Your task to perform on an android device: Open calendar and show me the fourth week of next month Image 0: 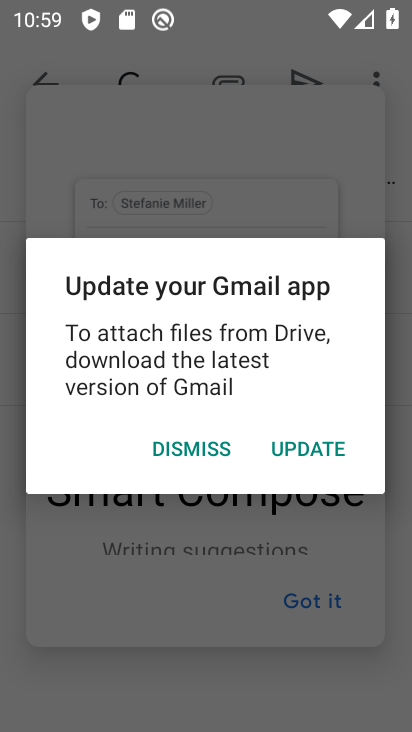
Step 0: press home button
Your task to perform on an android device: Open calendar and show me the fourth week of next month Image 1: 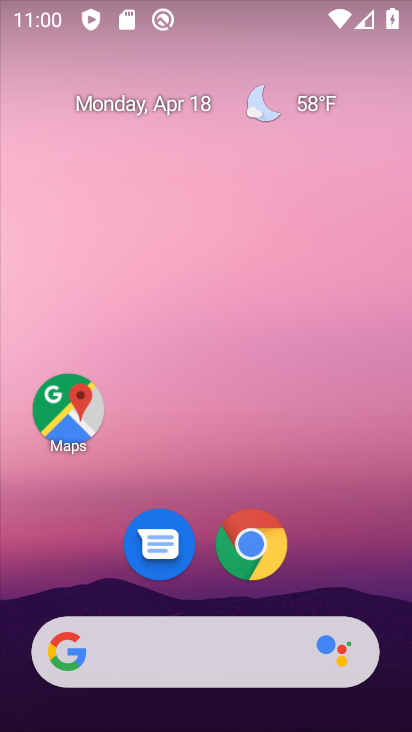
Step 1: drag from (202, 588) to (270, 45)
Your task to perform on an android device: Open calendar and show me the fourth week of next month Image 2: 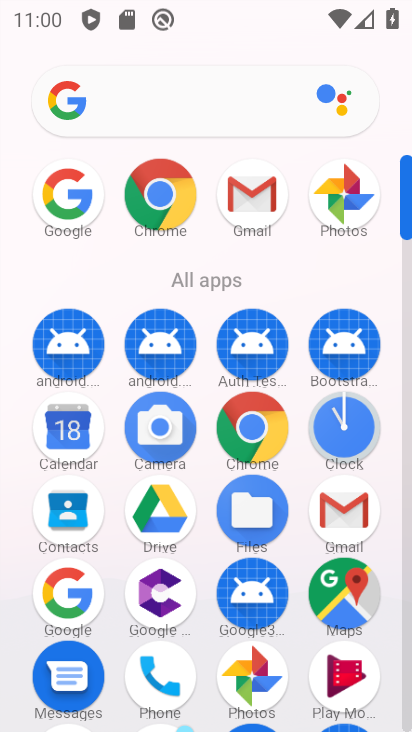
Step 2: click (62, 424)
Your task to perform on an android device: Open calendar and show me the fourth week of next month Image 3: 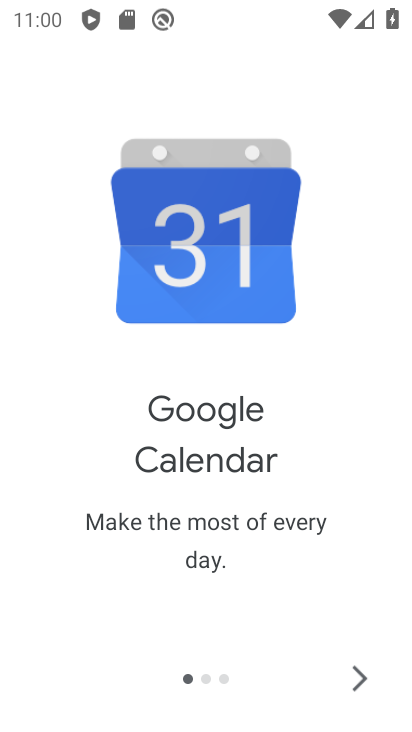
Step 3: click (361, 678)
Your task to perform on an android device: Open calendar and show me the fourth week of next month Image 4: 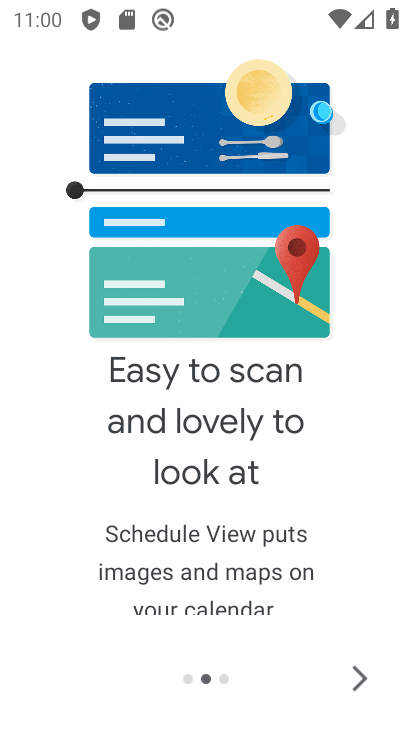
Step 4: click (361, 678)
Your task to perform on an android device: Open calendar and show me the fourth week of next month Image 5: 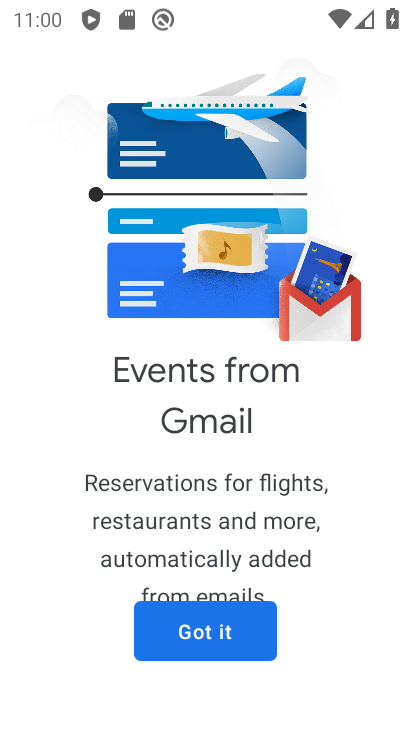
Step 5: click (207, 637)
Your task to perform on an android device: Open calendar and show me the fourth week of next month Image 6: 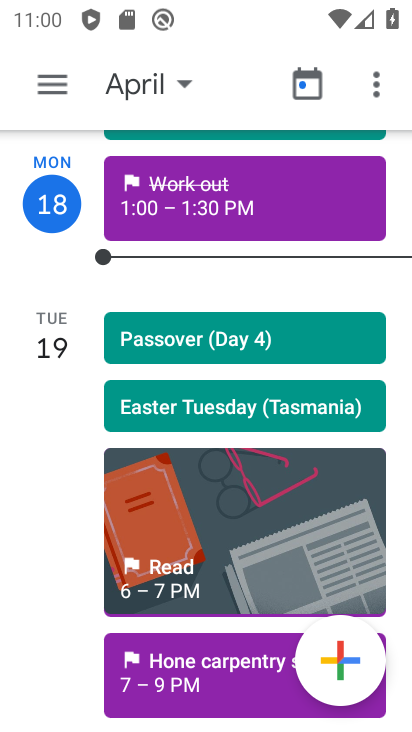
Step 6: click (185, 78)
Your task to perform on an android device: Open calendar and show me the fourth week of next month Image 7: 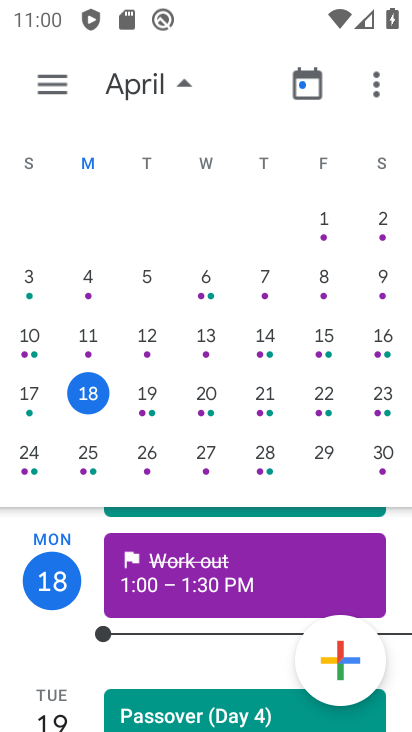
Step 7: drag from (348, 406) to (0, 383)
Your task to perform on an android device: Open calendar and show me the fourth week of next month Image 8: 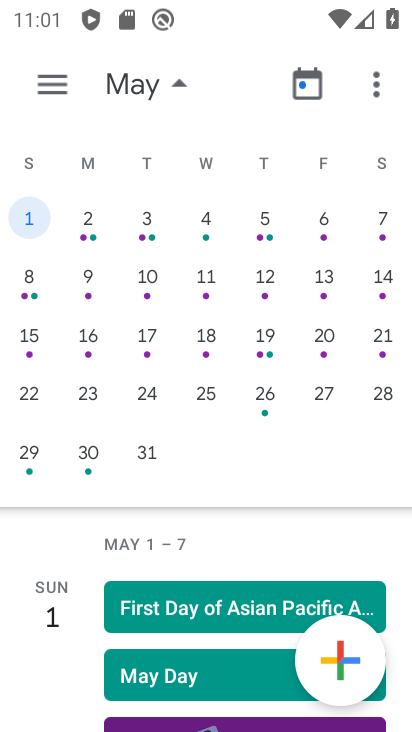
Step 8: click (104, 392)
Your task to perform on an android device: Open calendar and show me the fourth week of next month Image 9: 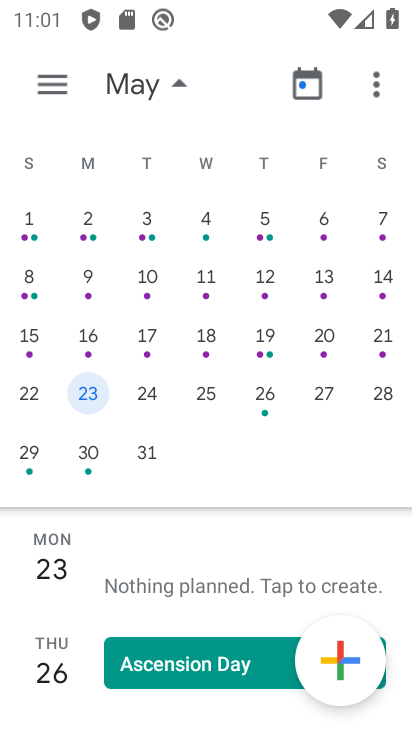
Step 9: click (57, 93)
Your task to perform on an android device: Open calendar and show me the fourth week of next month Image 10: 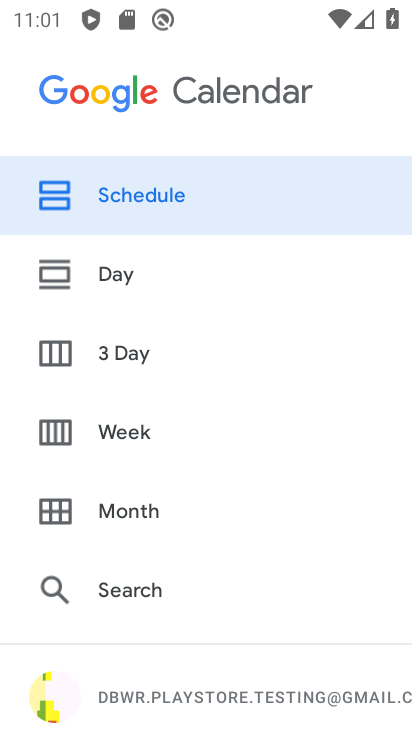
Step 10: click (135, 442)
Your task to perform on an android device: Open calendar and show me the fourth week of next month Image 11: 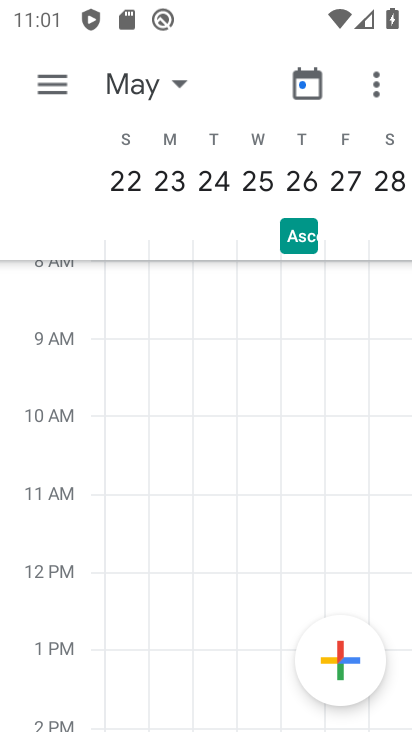
Step 11: task complete